Your task to perform on an android device: turn on javascript in the chrome app Image 0: 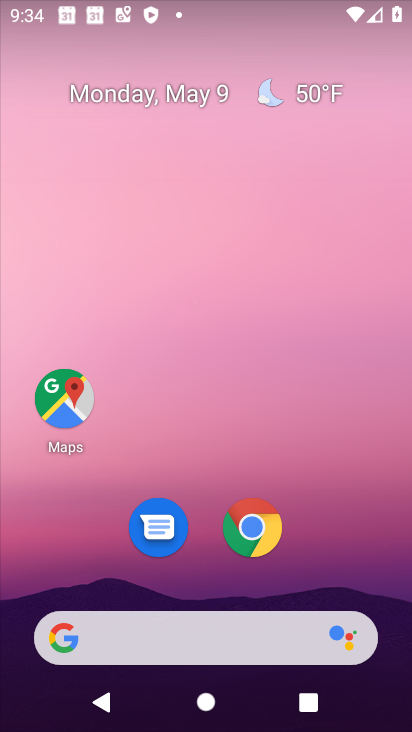
Step 0: click (252, 527)
Your task to perform on an android device: turn on javascript in the chrome app Image 1: 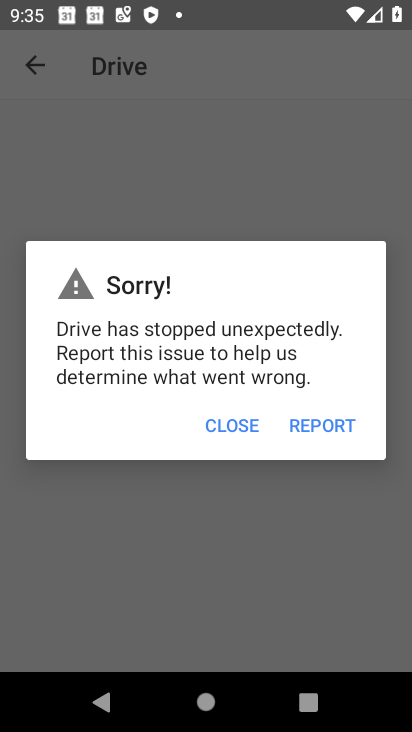
Step 1: click (243, 422)
Your task to perform on an android device: turn on javascript in the chrome app Image 2: 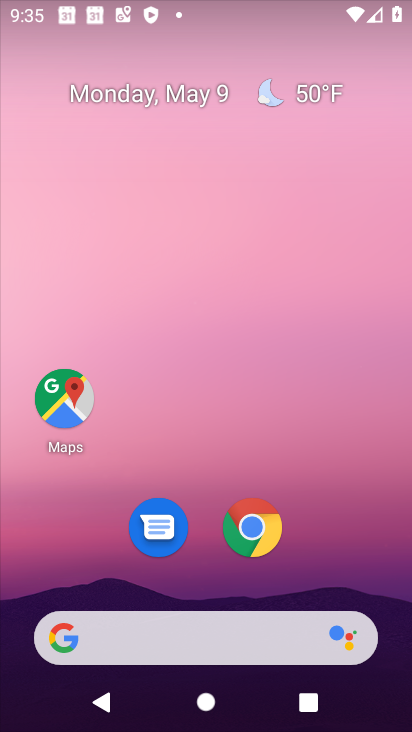
Step 2: click (253, 527)
Your task to perform on an android device: turn on javascript in the chrome app Image 3: 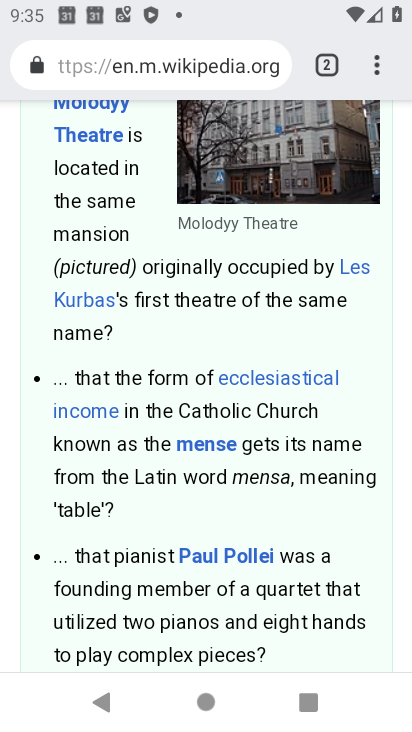
Step 3: click (381, 49)
Your task to perform on an android device: turn on javascript in the chrome app Image 4: 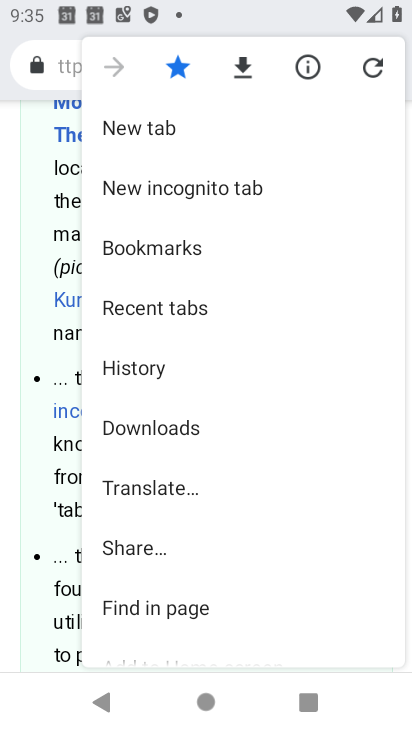
Step 4: click (377, 67)
Your task to perform on an android device: turn on javascript in the chrome app Image 5: 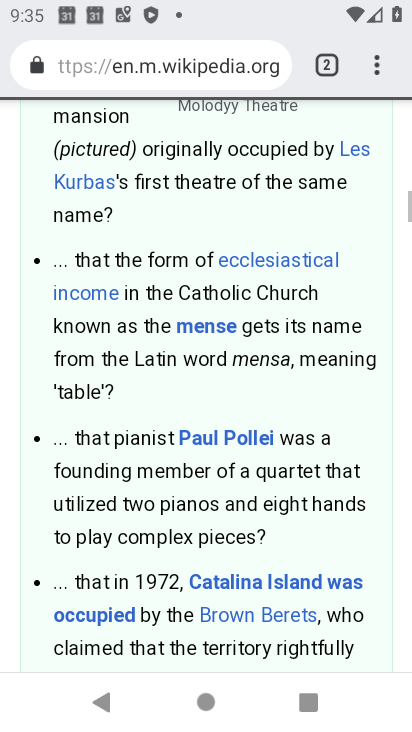
Step 5: drag from (197, 360) to (197, 224)
Your task to perform on an android device: turn on javascript in the chrome app Image 6: 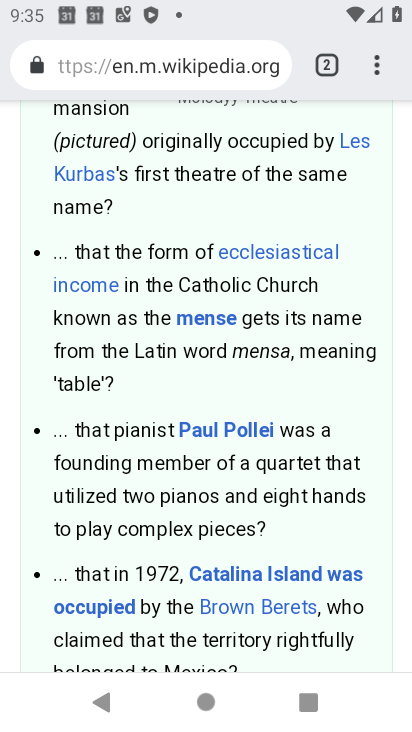
Step 6: click (380, 61)
Your task to perform on an android device: turn on javascript in the chrome app Image 7: 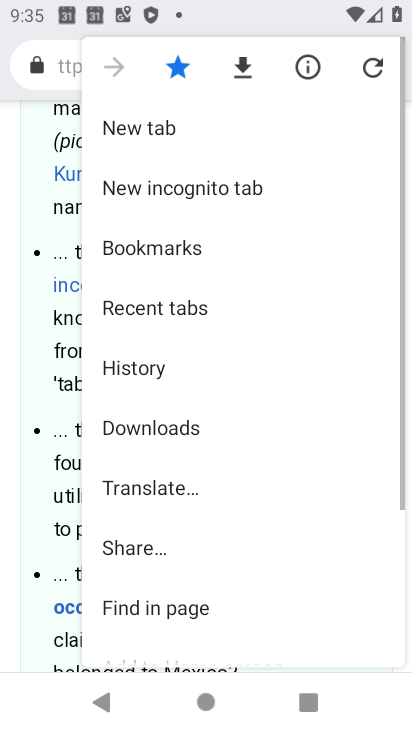
Step 7: click (373, 61)
Your task to perform on an android device: turn on javascript in the chrome app Image 8: 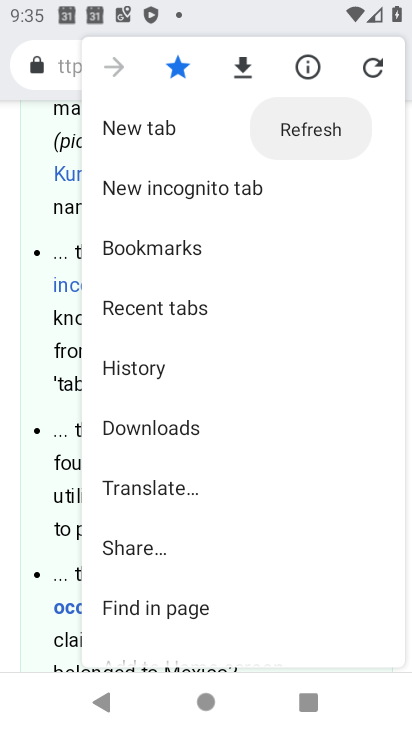
Step 8: drag from (162, 633) to (162, 248)
Your task to perform on an android device: turn on javascript in the chrome app Image 9: 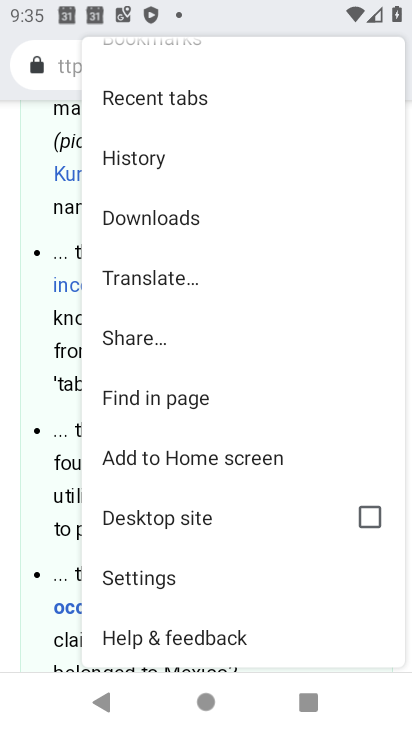
Step 9: click (160, 584)
Your task to perform on an android device: turn on javascript in the chrome app Image 10: 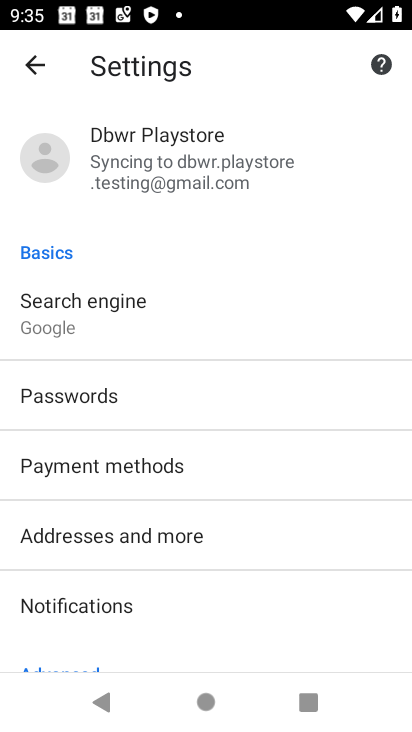
Step 10: drag from (140, 618) to (197, 165)
Your task to perform on an android device: turn on javascript in the chrome app Image 11: 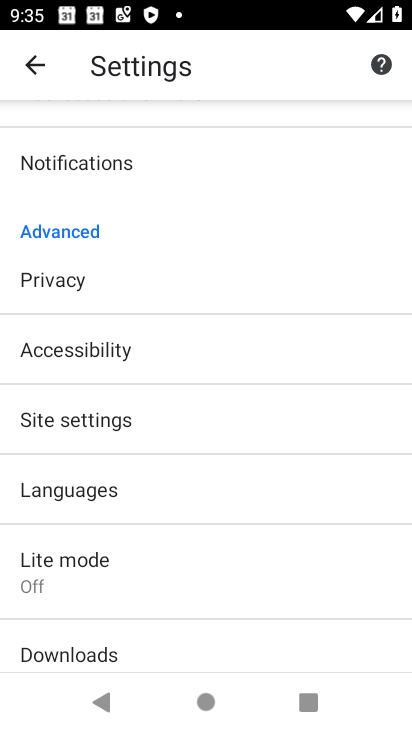
Step 11: click (74, 420)
Your task to perform on an android device: turn on javascript in the chrome app Image 12: 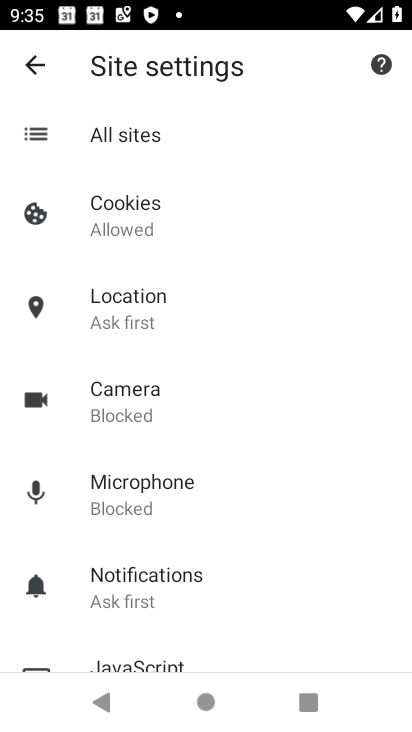
Step 12: drag from (136, 628) to (174, 215)
Your task to perform on an android device: turn on javascript in the chrome app Image 13: 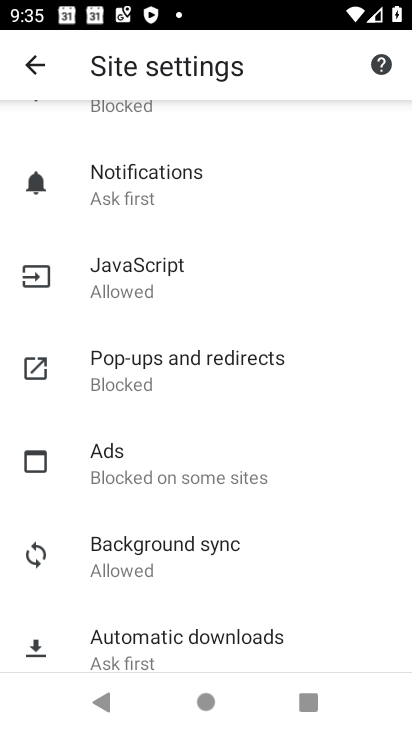
Step 13: click (157, 279)
Your task to perform on an android device: turn on javascript in the chrome app Image 14: 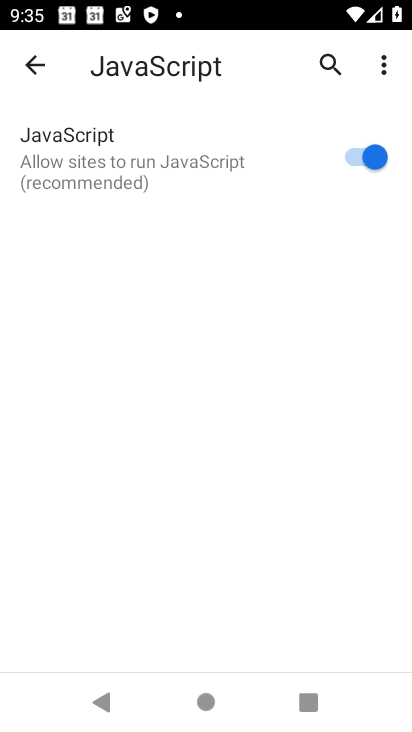
Step 14: task complete